Your task to perform on an android device: Show me the alarms in the clock app Image 0: 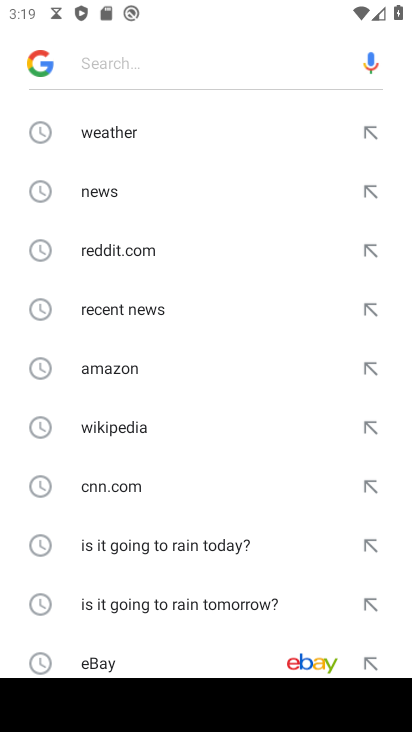
Step 0: press home button
Your task to perform on an android device: Show me the alarms in the clock app Image 1: 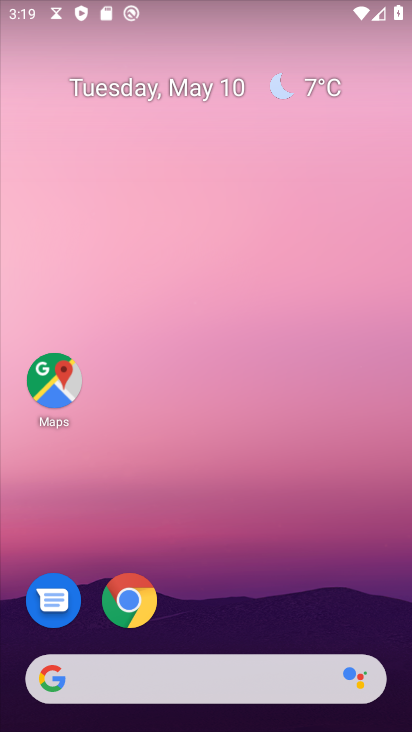
Step 1: drag from (281, 588) to (281, 359)
Your task to perform on an android device: Show me the alarms in the clock app Image 2: 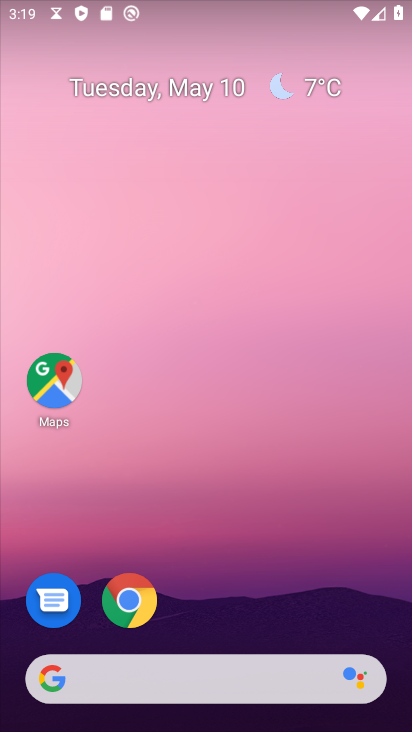
Step 2: drag from (240, 513) to (342, 8)
Your task to perform on an android device: Show me the alarms in the clock app Image 3: 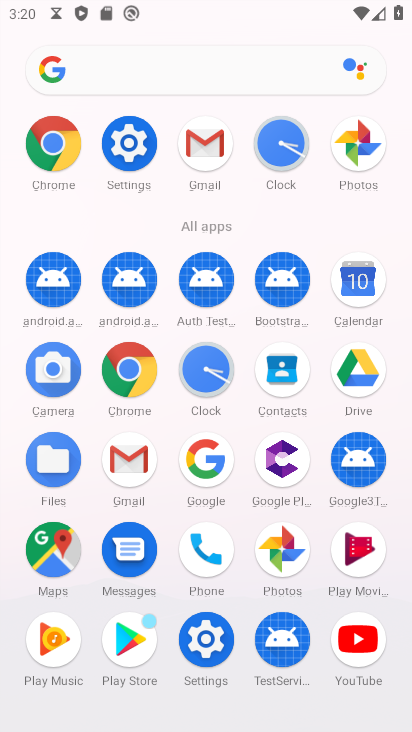
Step 3: click (220, 382)
Your task to perform on an android device: Show me the alarms in the clock app Image 4: 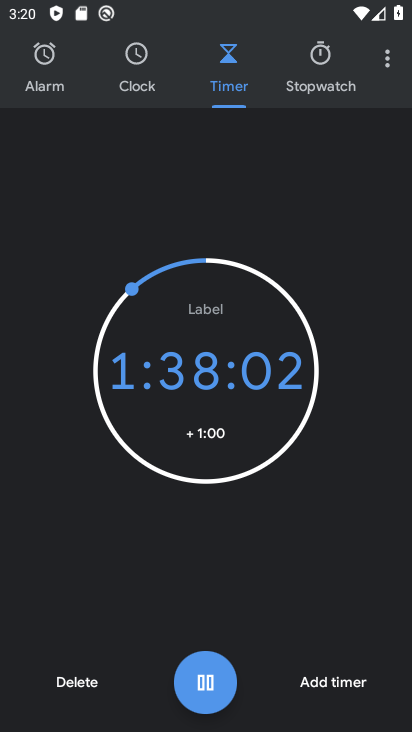
Step 4: click (66, 74)
Your task to perform on an android device: Show me the alarms in the clock app Image 5: 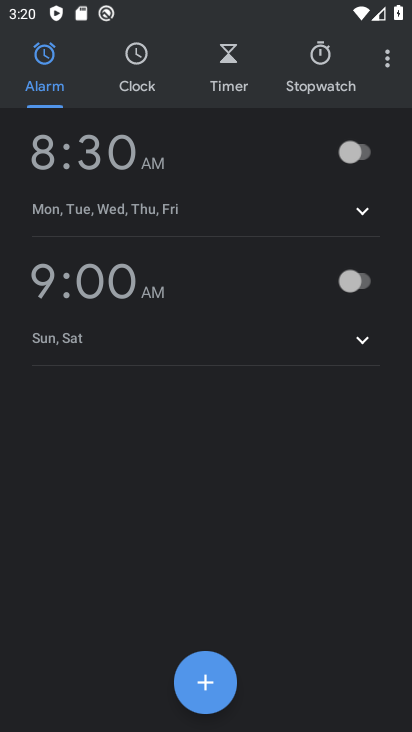
Step 5: task complete